Your task to perform on an android device: turn notification dots on Image 0: 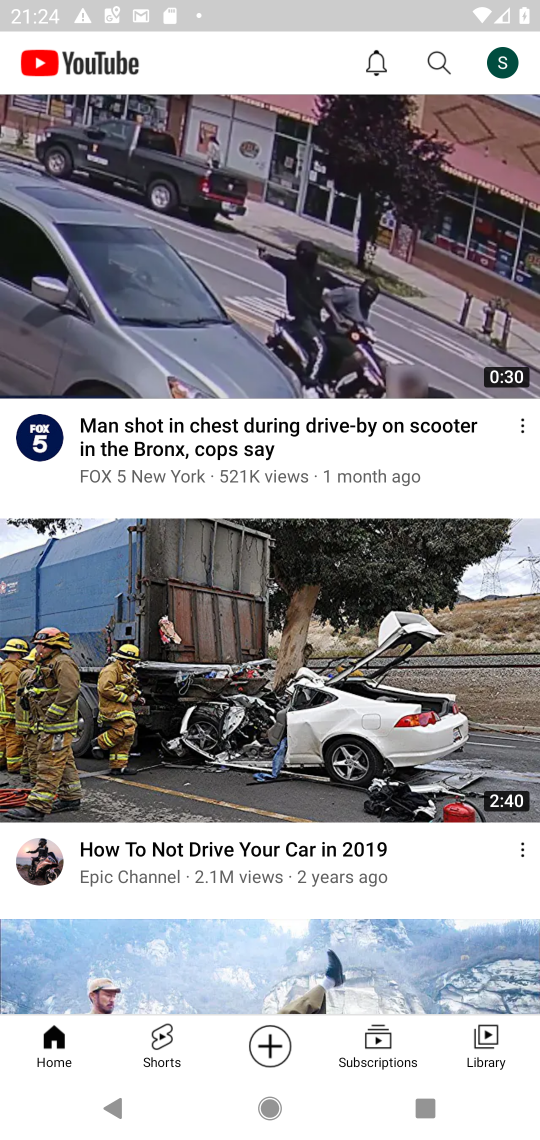
Step 0: press home button
Your task to perform on an android device: turn notification dots on Image 1: 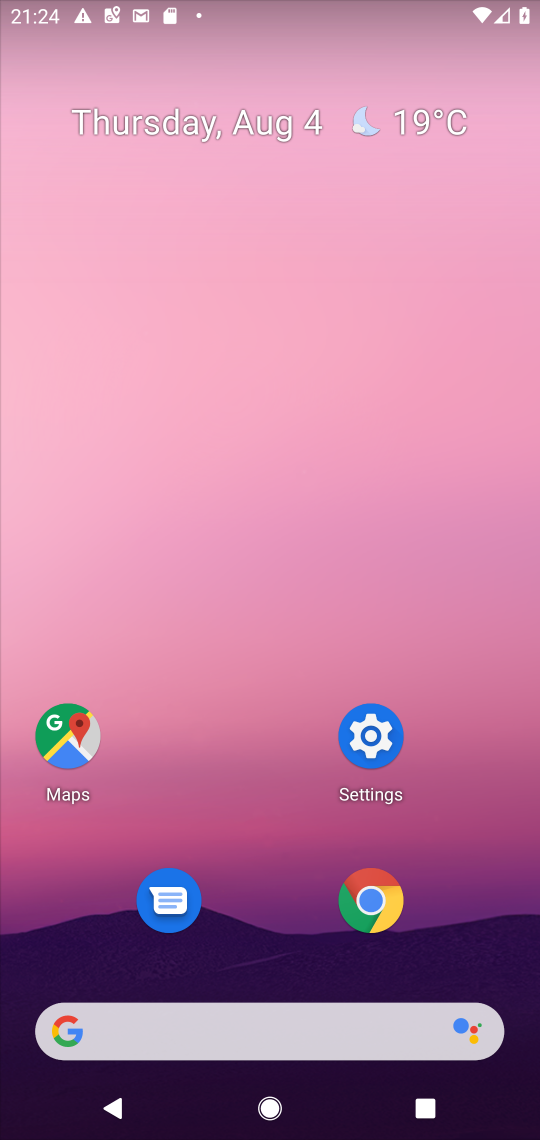
Step 1: drag from (248, 1026) to (450, 191)
Your task to perform on an android device: turn notification dots on Image 2: 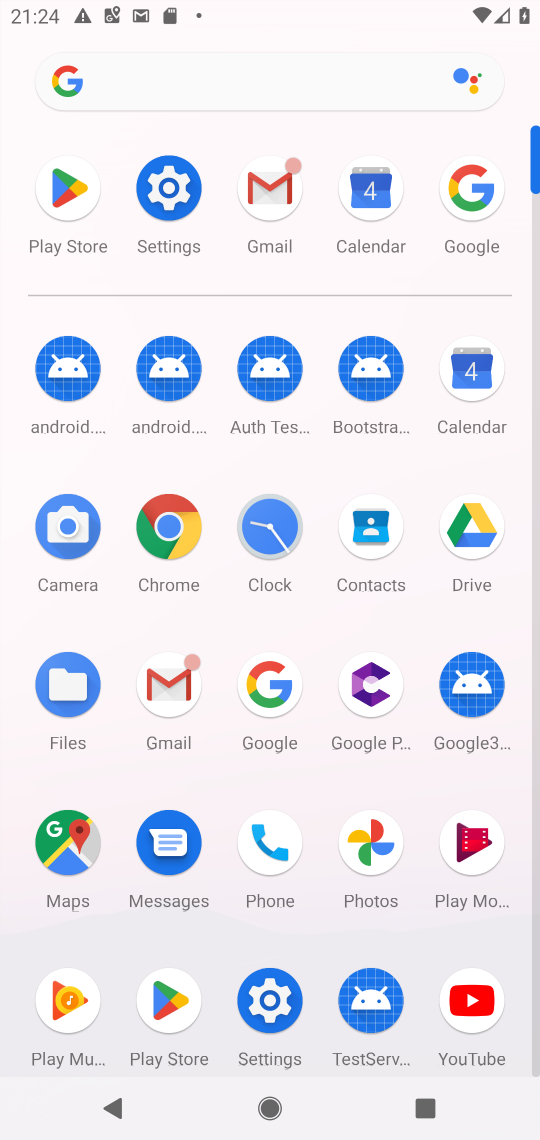
Step 2: click (169, 185)
Your task to perform on an android device: turn notification dots on Image 3: 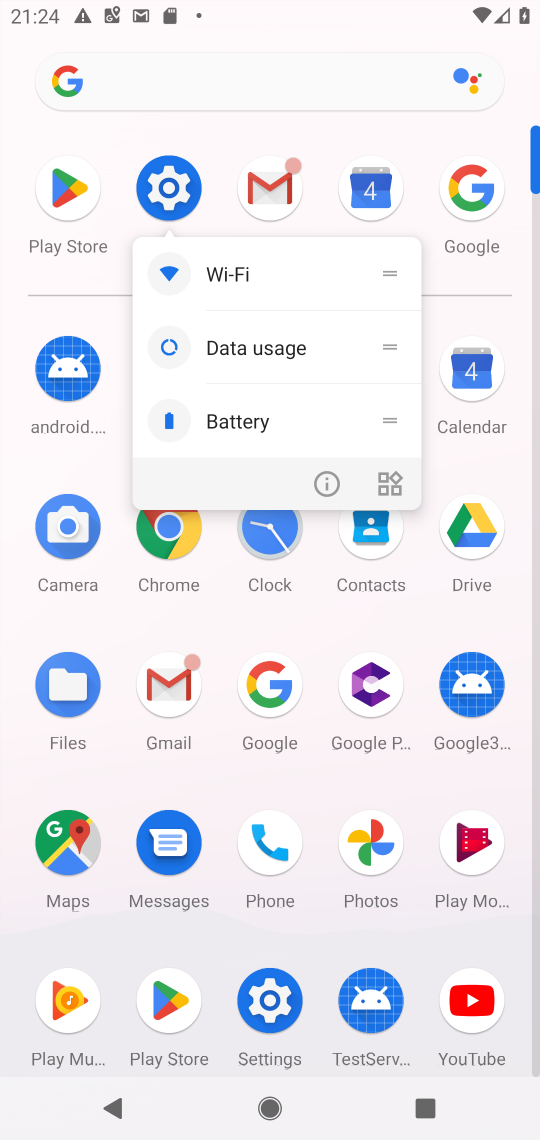
Step 3: click (169, 191)
Your task to perform on an android device: turn notification dots on Image 4: 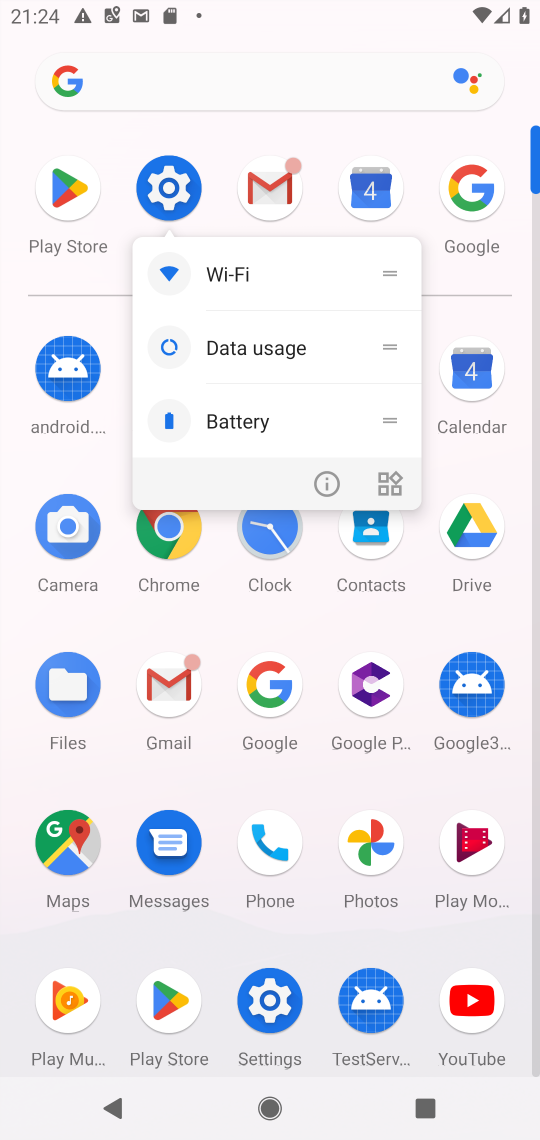
Step 4: click (169, 192)
Your task to perform on an android device: turn notification dots on Image 5: 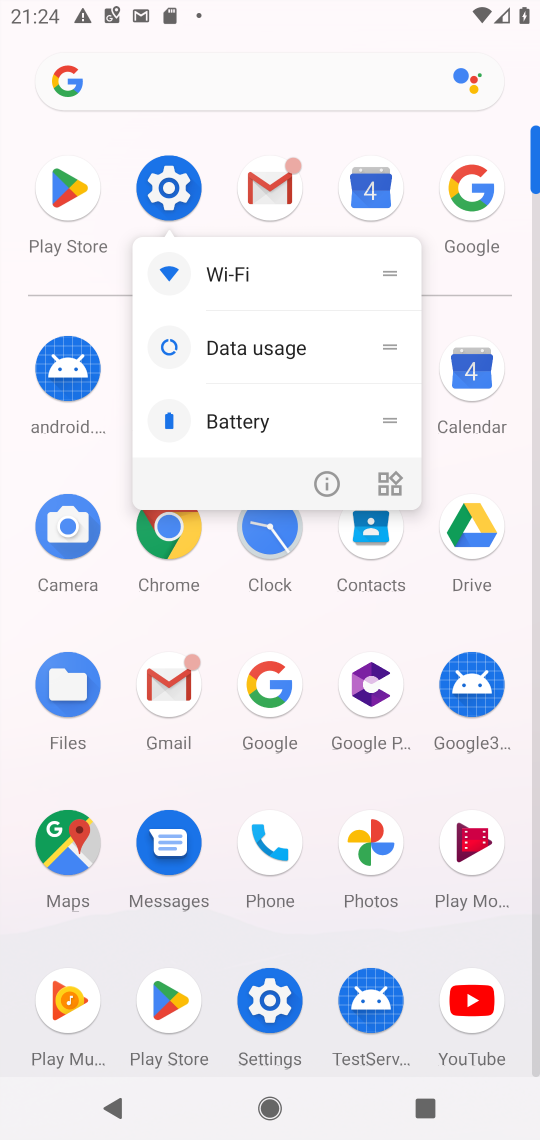
Step 5: click (169, 191)
Your task to perform on an android device: turn notification dots on Image 6: 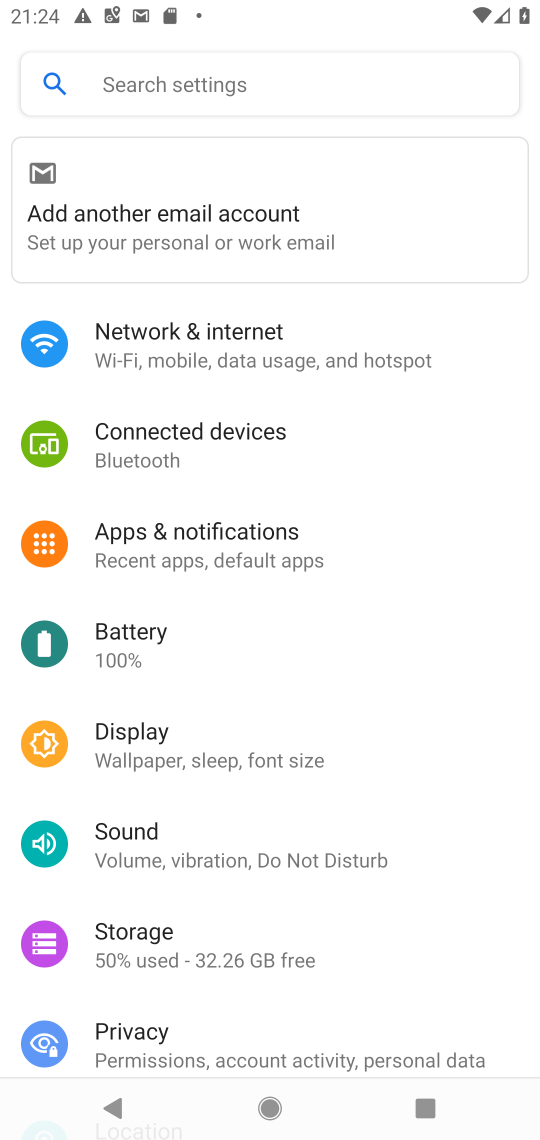
Step 6: click (221, 543)
Your task to perform on an android device: turn notification dots on Image 7: 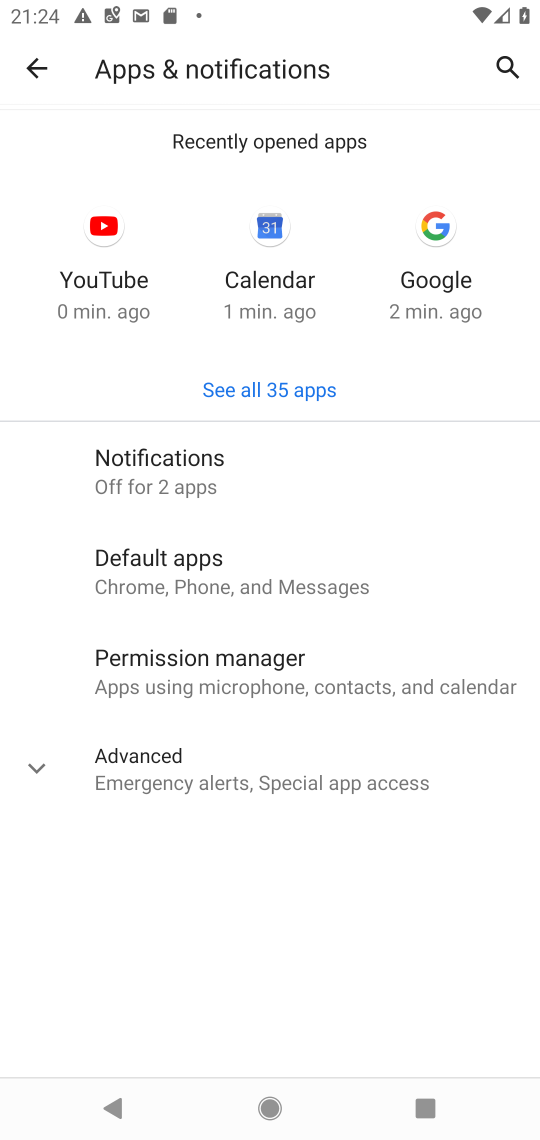
Step 7: click (165, 455)
Your task to perform on an android device: turn notification dots on Image 8: 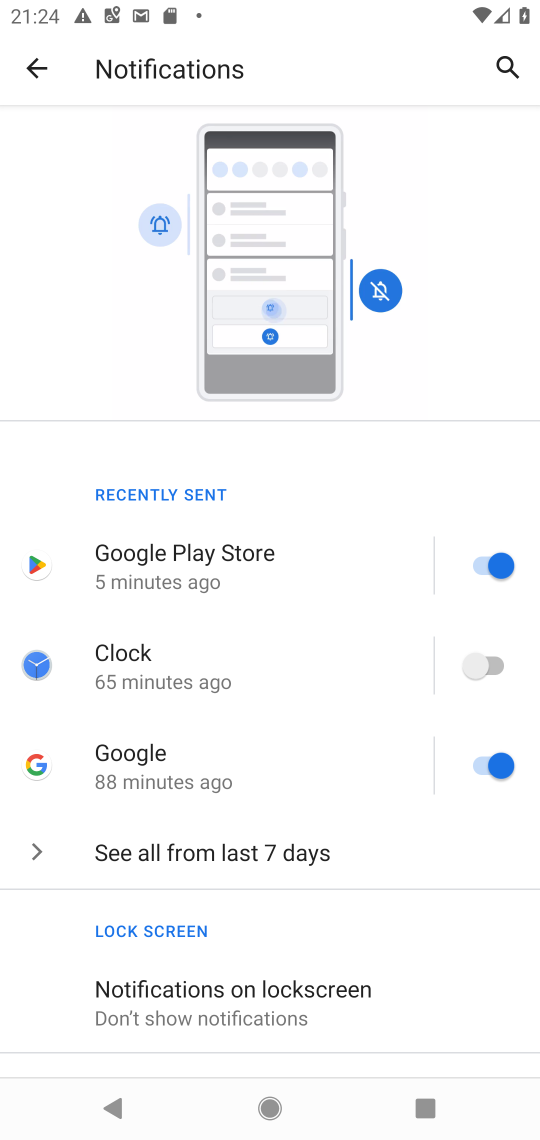
Step 8: drag from (313, 1034) to (446, 96)
Your task to perform on an android device: turn notification dots on Image 9: 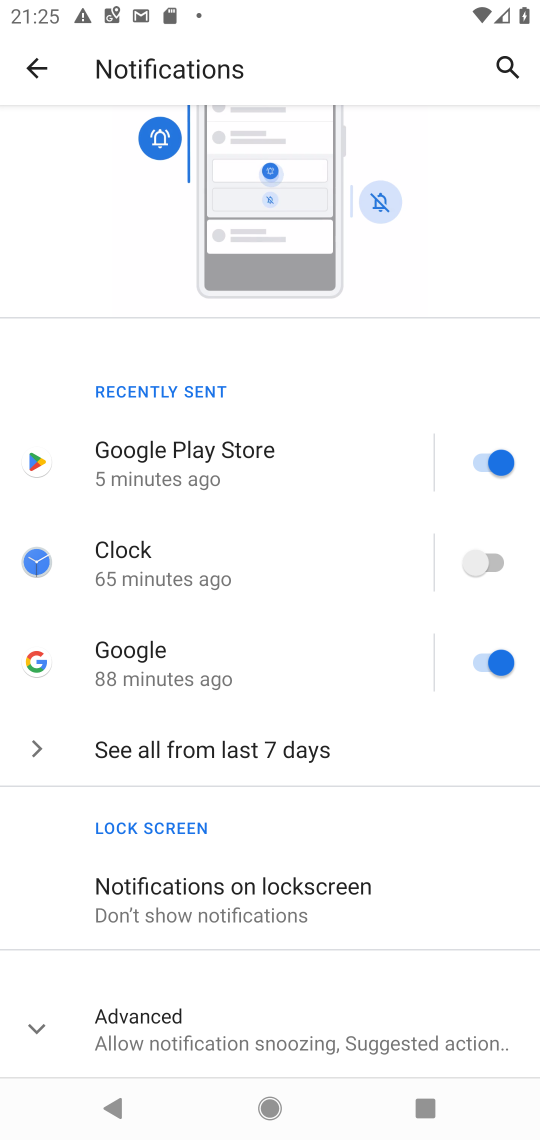
Step 9: click (174, 1018)
Your task to perform on an android device: turn notification dots on Image 10: 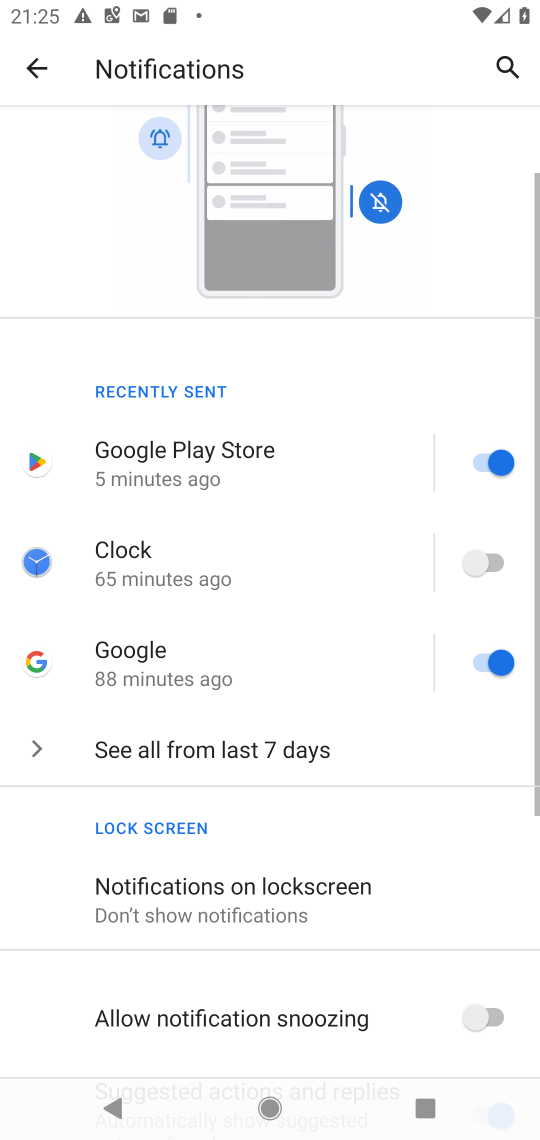
Step 10: task complete